Your task to perform on an android device: read, delete, or share a saved page in the chrome app Image 0: 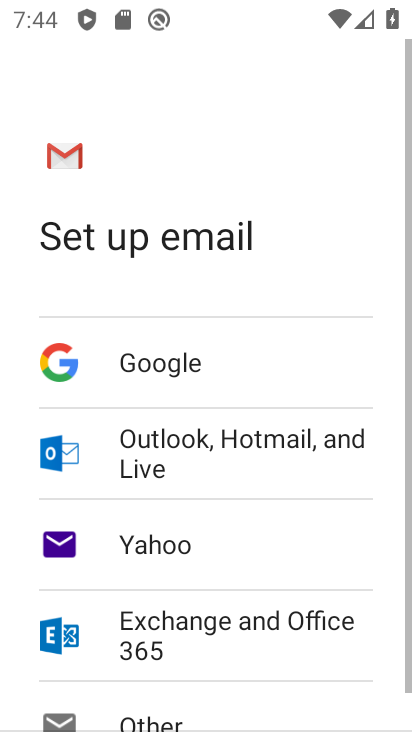
Step 0: press back button
Your task to perform on an android device: read, delete, or share a saved page in the chrome app Image 1: 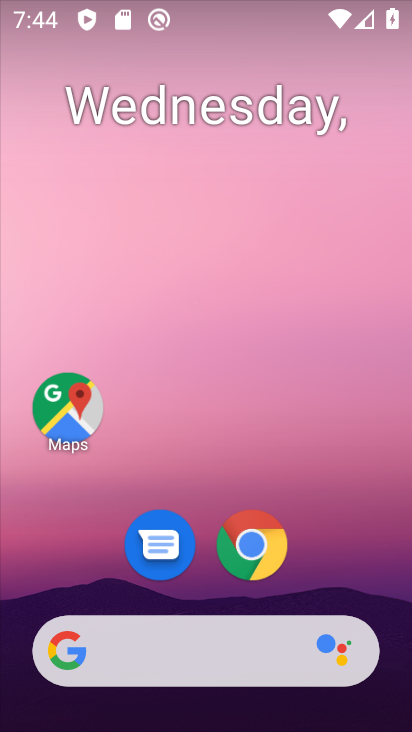
Step 1: drag from (214, 683) to (172, 240)
Your task to perform on an android device: read, delete, or share a saved page in the chrome app Image 2: 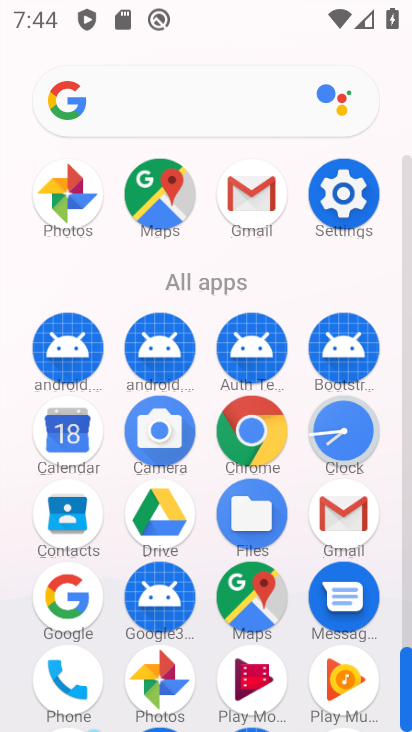
Step 2: click (248, 416)
Your task to perform on an android device: read, delete, or share a saved page in the chrome app Image 3: 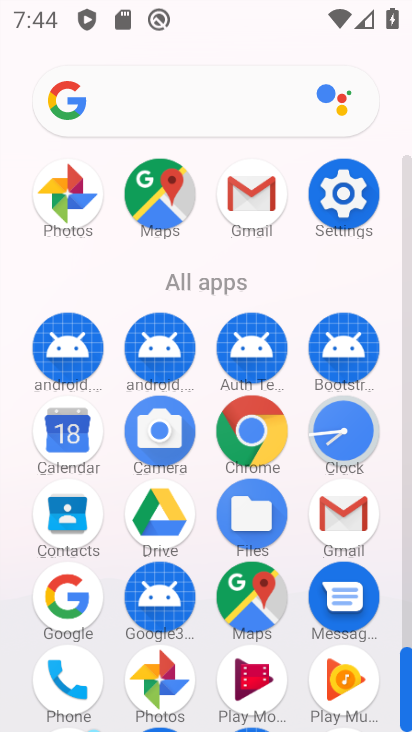
Step 3: click (234, 425)
Your task to perform on an android device: read, delete, or share a saved page in the chrome app Image 4: 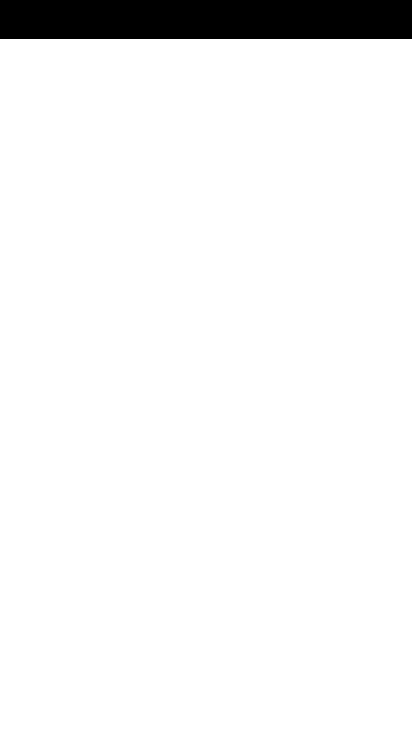
Step 4: click (222, 427)
Your task to perform on an android device: read, delete, or share a saved page in the chrome app Image 5: 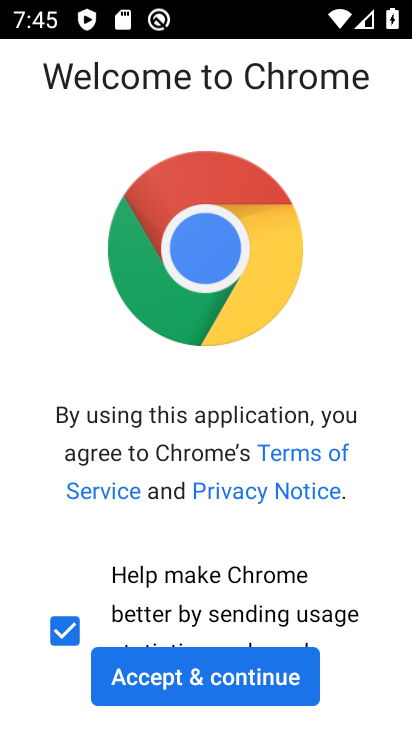
Step 5: click (188, 681)
Your task to perform on an android device: read, delete, or share a saved page in the chrome app Image 6: 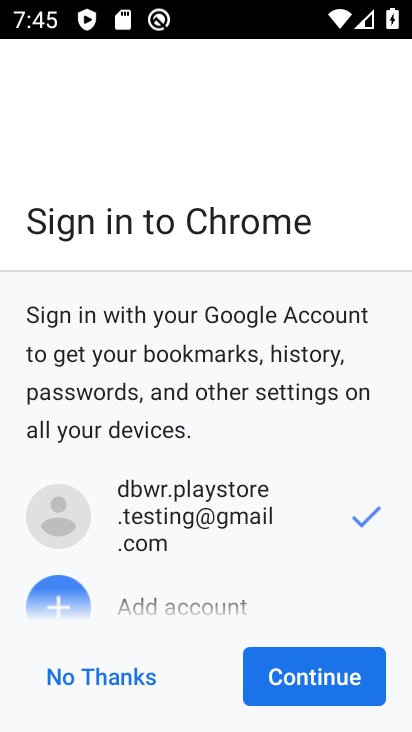
Step 6: click (310, 678)
Your task to perform on an android device: read, delete, or share a saved page in the chrome app Image 7: 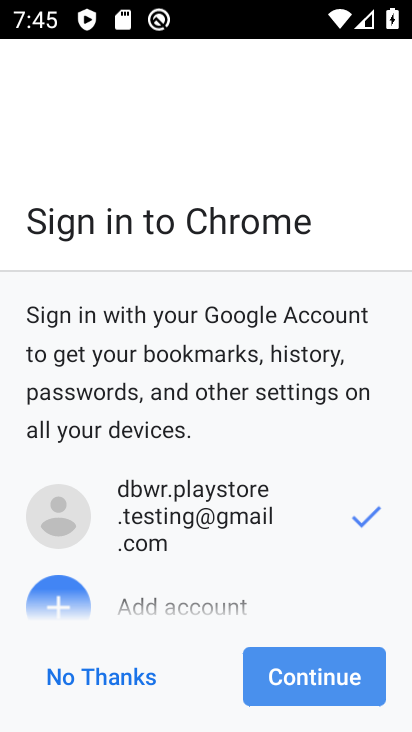
Step 7: click (313, 672)
Your task to perform on an android device: read, delete, or share a saved page in the chrome app Image 8: 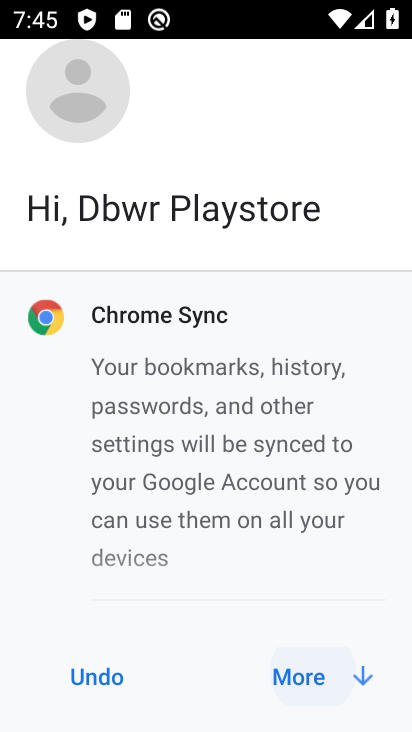
Step 8: click (308, 672)
Your task to perform on an android device: read, delete, or share a saved page in the chrome app Image 9: 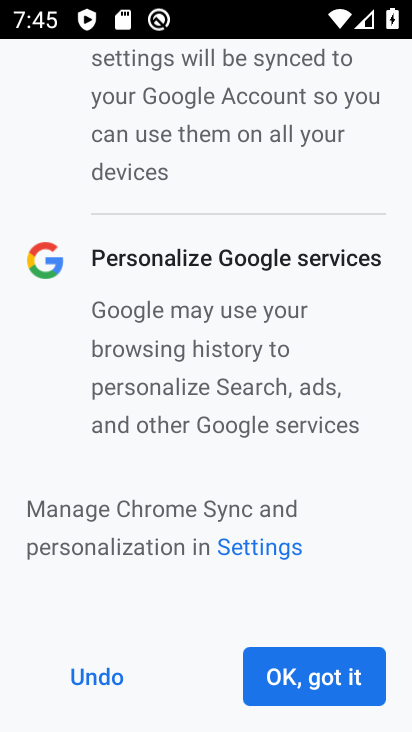
Step 9: click (300, 665)
Your task to perform on an android device: read, delete, or share a saved page in the chrome app Image 10: 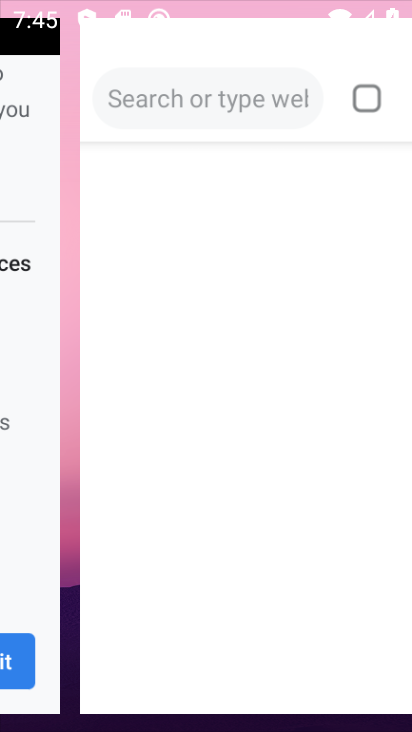
Step 10: click (289, 660)
Your task to perform on an android device: read, delete, or share a saved page in the chrome app Image 11: 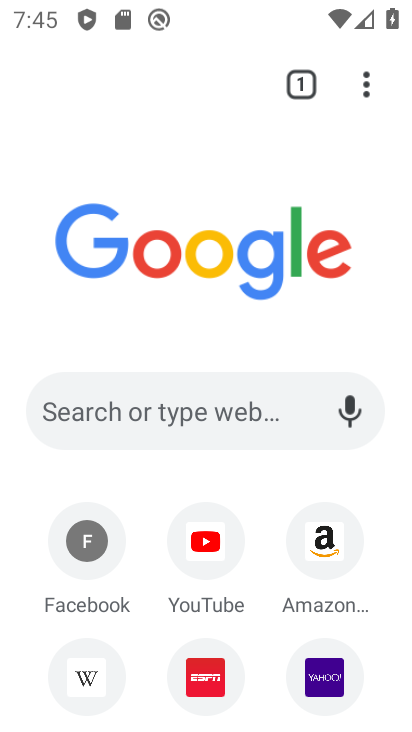
Step 11: click (318, 665)
Your task to perform on an android device: read, delete, or share a saved page in the chrome app Image 12: 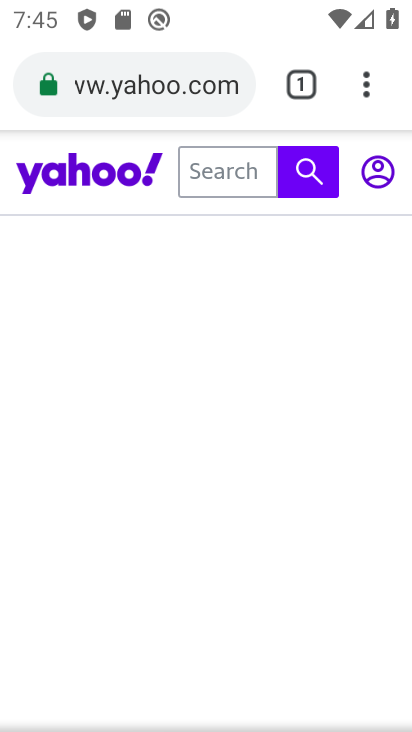
Step 12: drag from (365, 82) to (256, 339)
Your task to perform on an android device: read, delete, or share a saved page in the chrome app Image 13: 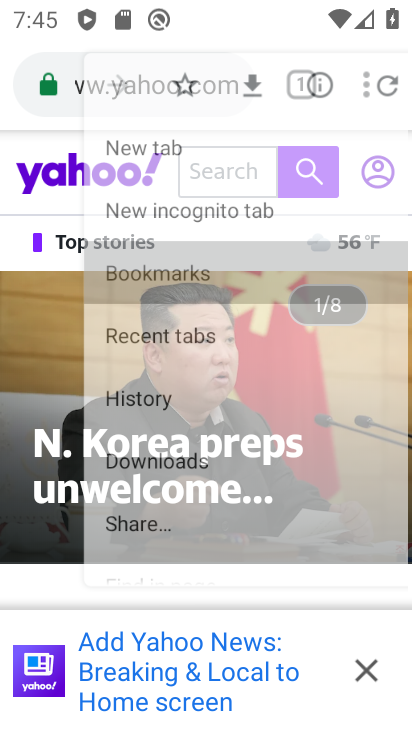
Step 13: click (92, 563)
Your task to perform on an android device: read, delete, or share a saved page in the chrome app Image 14: 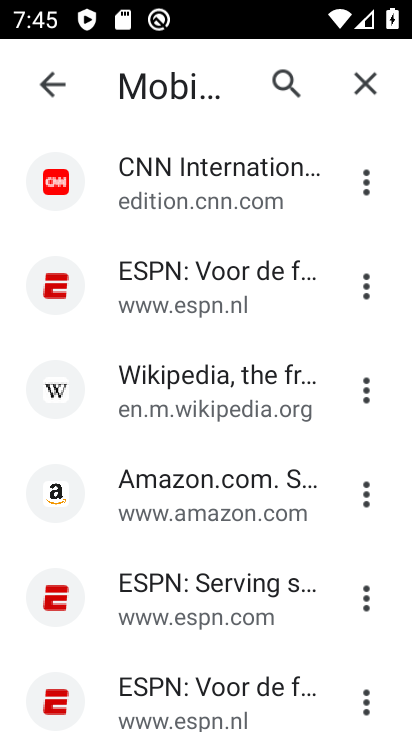
Step 14: click (48, 80)
Your task to perform on an android device: read, delete, or share a saved page in the chrome app Image 15: 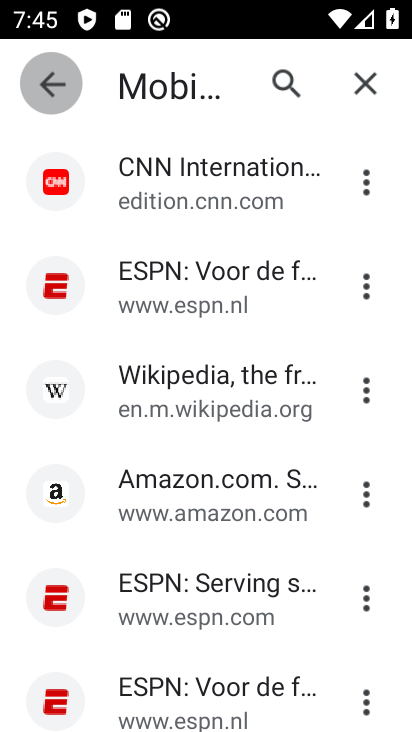
Step 15: click (46, 82)
Your task to perform on an android device: read, delete, or share a saved page in the chrome app Image 16: 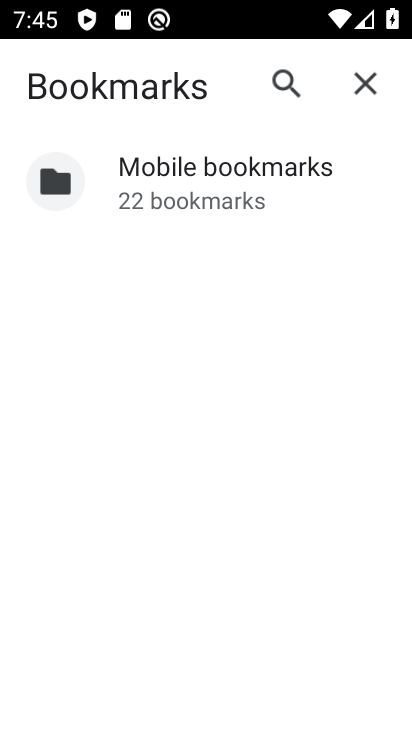
Step 16: click (46, 82)
Your task to perform on an android device: read, delete, or share a saved page in the chrome app Image 17: 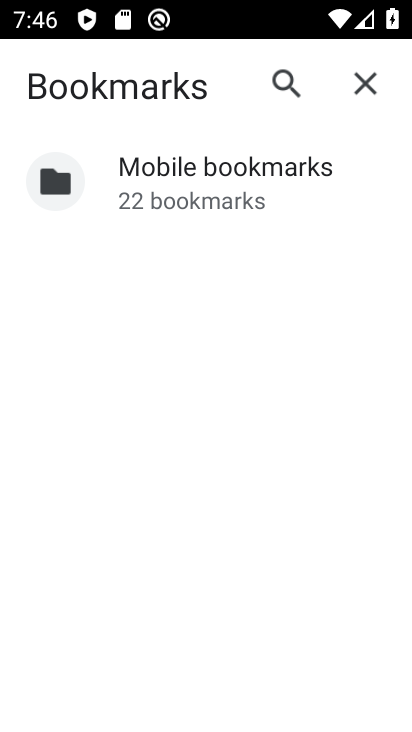
Step 17: click (366, 83)
Your task to perform on an android device: read, delete, or share a saved page in the chrome app Image 18: 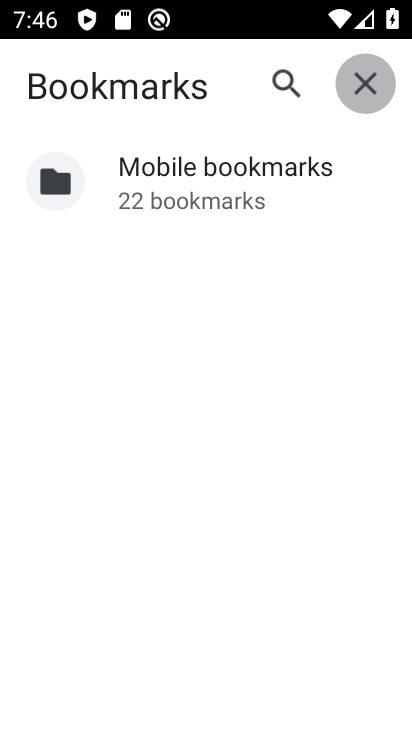
Step 18: click (367, 82)
Your task to perform on an android device: read, delete, or share a saved page in the chrome app Image 19: 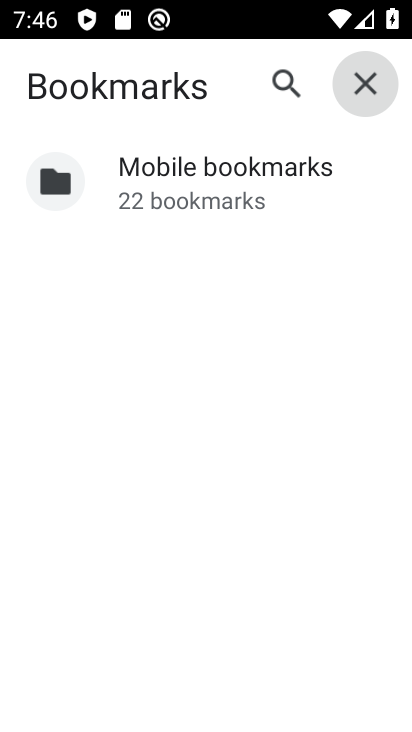
Step 19: click (363, 78)
Your task to perform on an android device: read, delete, or share a saved page in the chrome app Image 20: 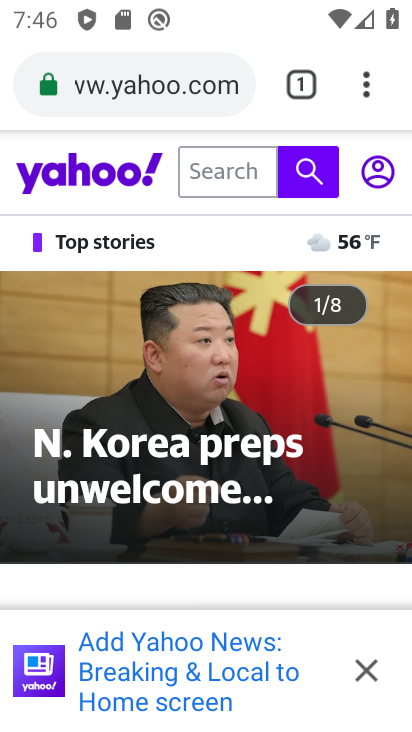
Step 20: click (371, 94)
Your task to perform on an android device: read, delete, or share a saved page in the chrome app Image 21: 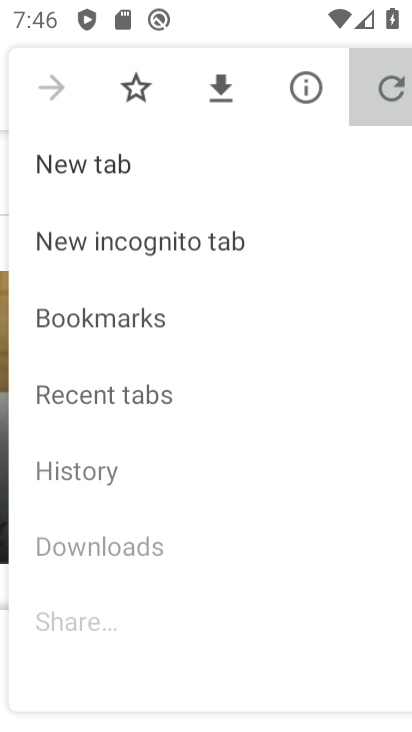
Step 21: click (358, 91)
Your task to perform on an android device: read, delete, or share a saved page in the chrome app Image 22: 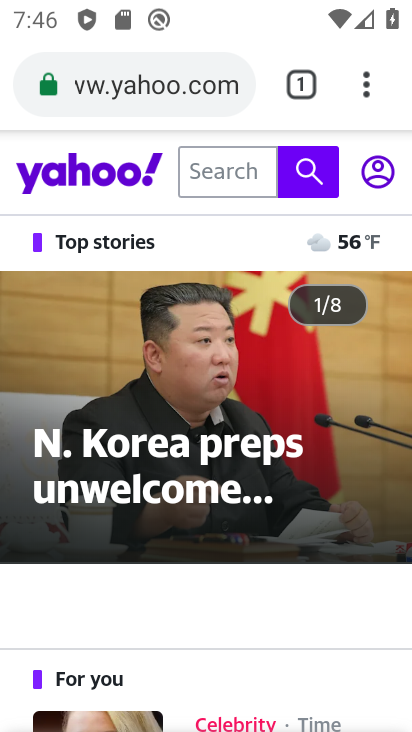
Step 22: drag from (370, 85) to (95, 573)
Your task to perform on an android device: read, delete, or share a saved page in the chrome app Image 23: 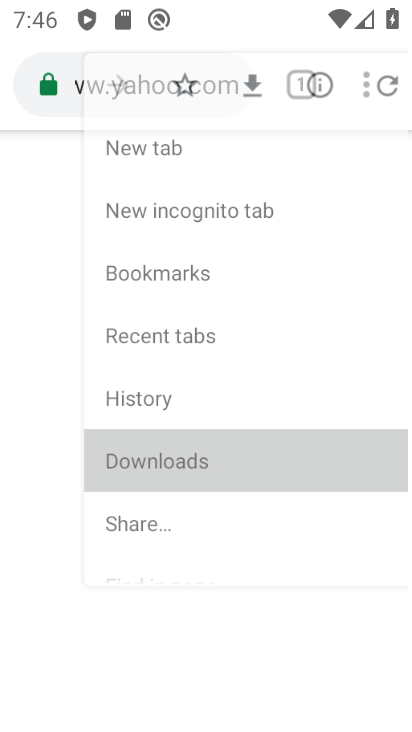
Step 23: click (89, 575)
Your task to perform on an android device: read, delete, or share a saved page in the chrome app Image 24: 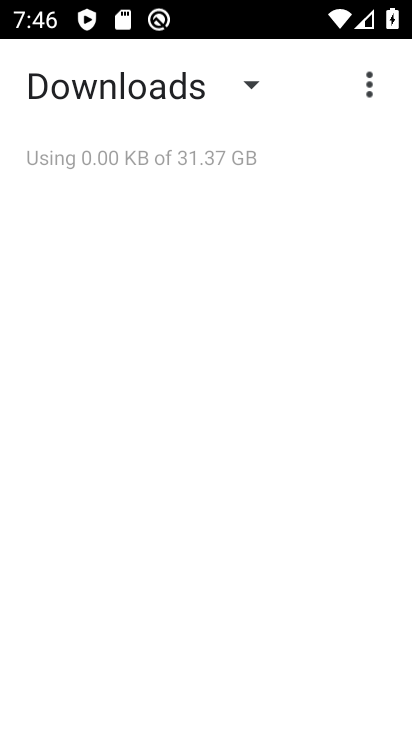
Step 24: task complete